Your task to perform on an android device: Go to Amazon Image 0: 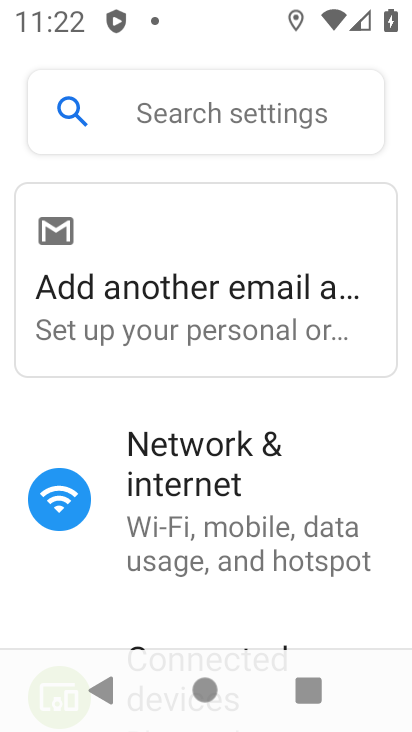
Step 0: press home button
Your task to perform on an android device: Go to Amazon Image 1: 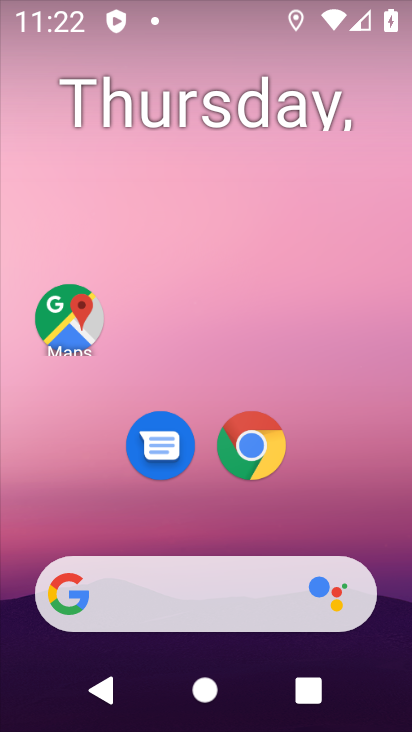
Step 1: click (261, 437)
Your task to perform on an android device: Go to Amazon Image 2: 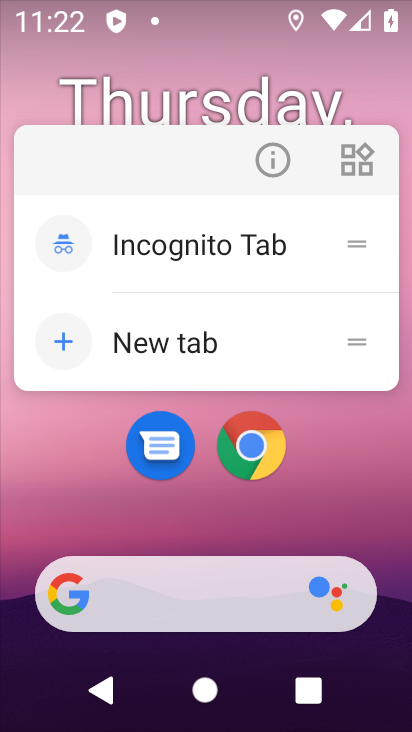
Step 2: click (261, 437)
Your task to perform on an android device: Go to Amazon Image 3: 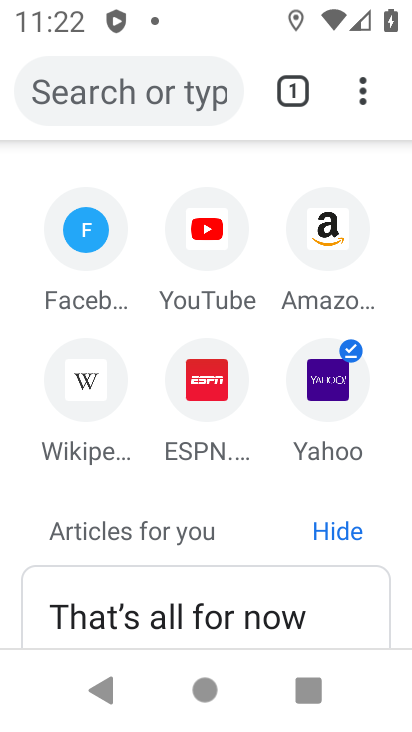
Step 3: click (331, 237)
Your task to perform on an android device: Go to Amazon Image 4: 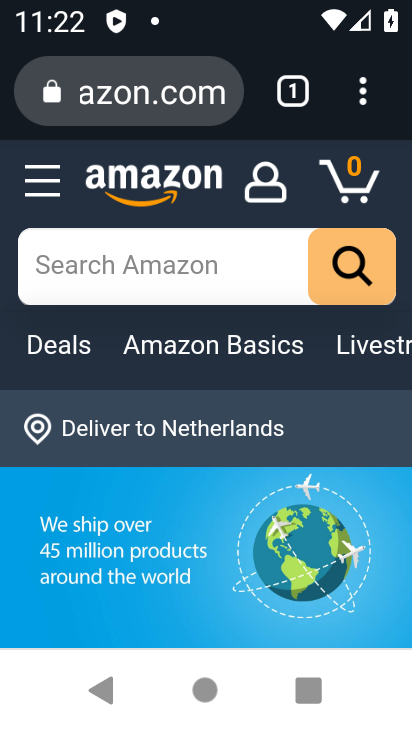
Step 4: task complete